Your task to perform on an android device: Search for pizza restaurants on Maps Image 0: 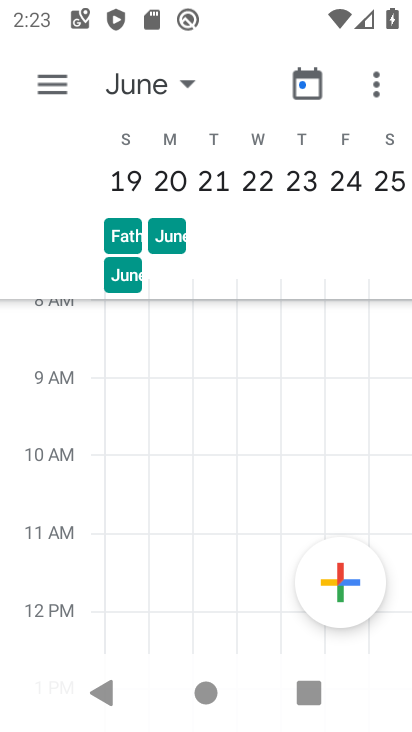
Step 0: press home button
Your task to perform on an android device: Search for pizza restaurants on Maps Image 1: 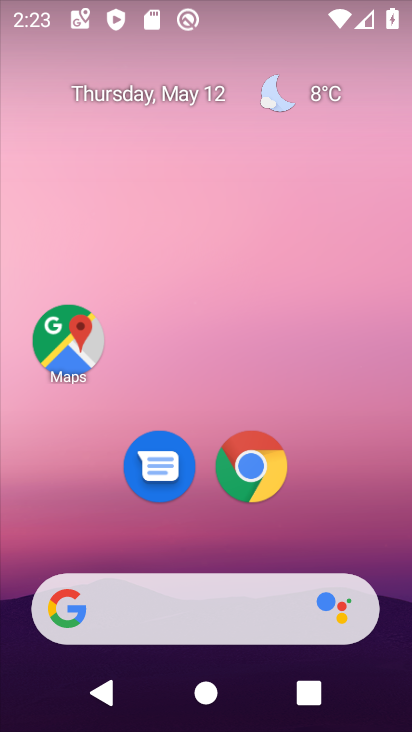
Step 1: click (79, 318)
Your task to perform on an android device: Search for pizza restaurants on Maps Image 2: 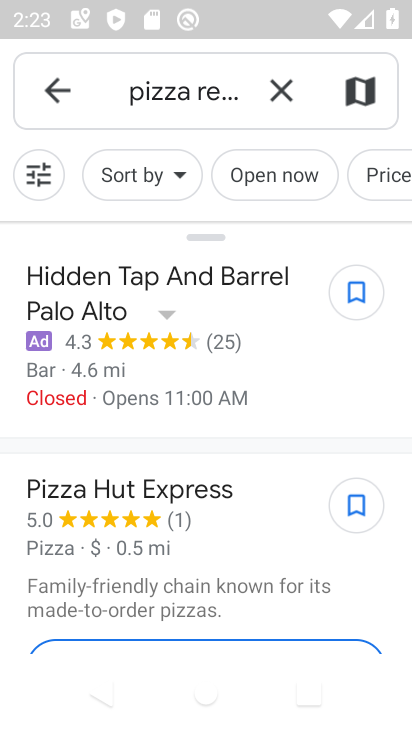
Step 2: task complete